Your task to perform on an android device: move an email to a new category in the gmail app Image 0: 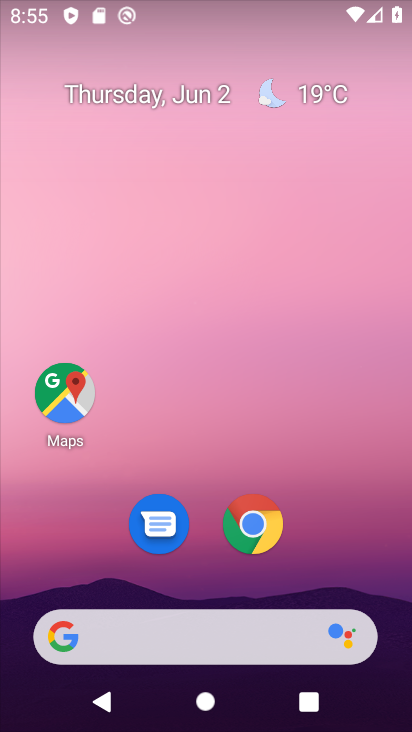
Step 0: drag from (336, 496) to (314, 3)
Your task to perform on an android device: move an email to a new category in the gmail app Image 1: 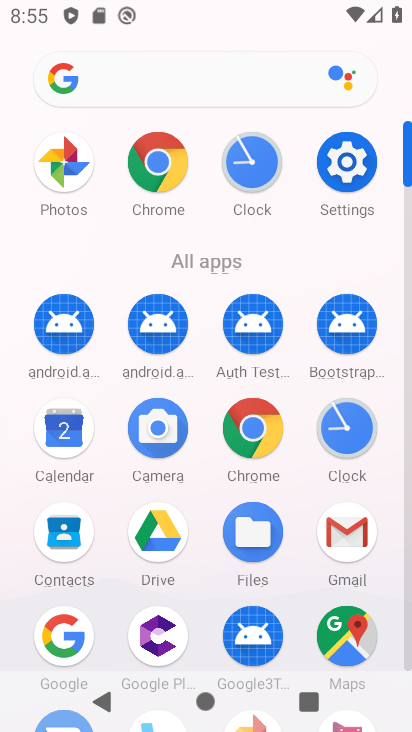
Step 1: click (352, 538)
Your task to perform on an android device: move an email to a new category in the gmail app Image 2: 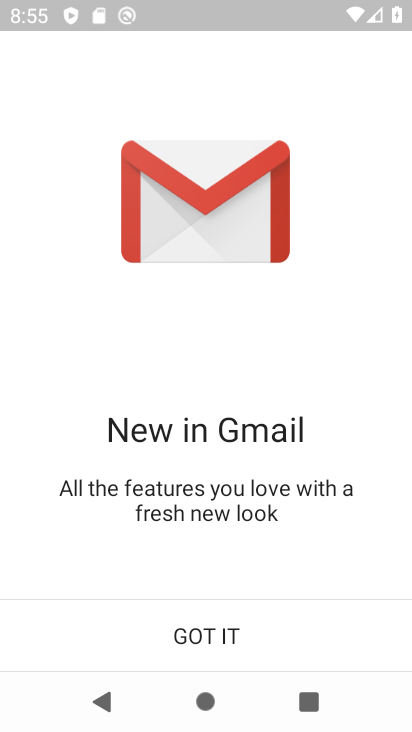
Step 2: click (285, 640)
Your task to perform on an android device: move an email to a new category in the gmail app Image 3: 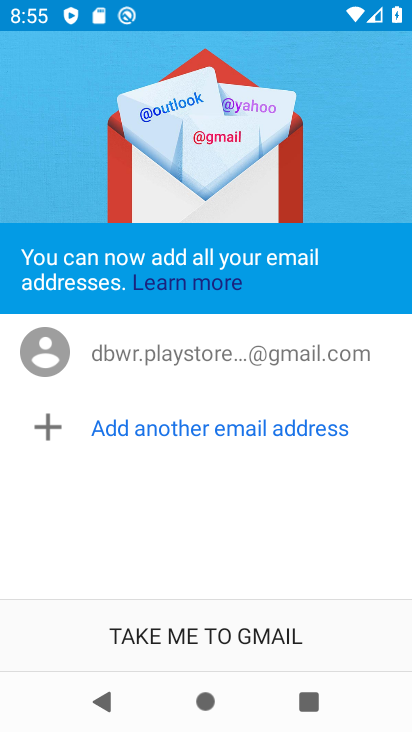
Step 3: click (289, 627)
Your task to perform on an android device: move an email to a new category in the gmail app Image 4: 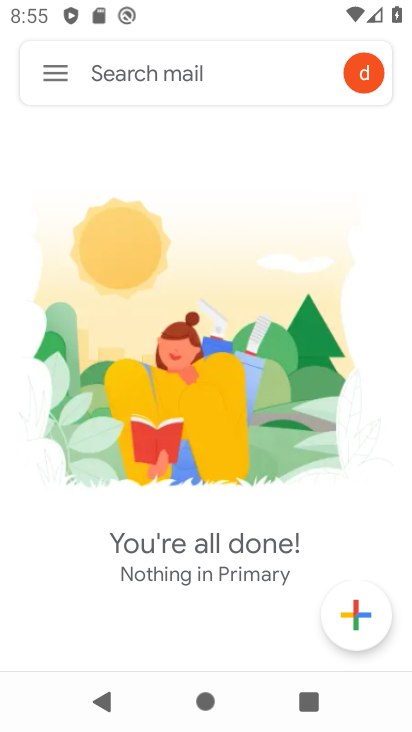
Step 4: click (51, 62)
Your task to perform on an android device: move an email to a new category in the gmail app Image 5: 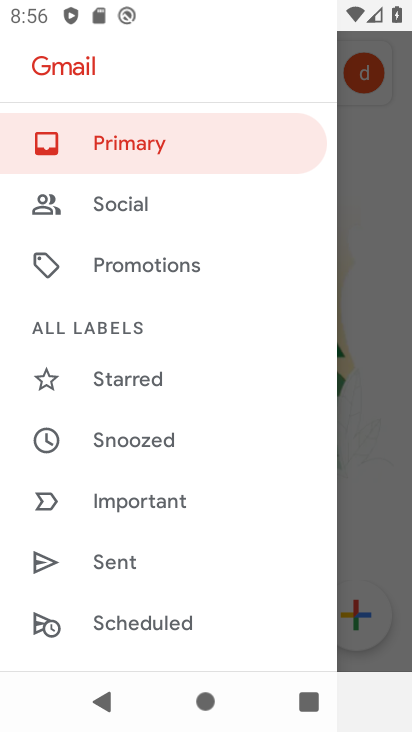
Step 5: drag from (167, 534) to (224, 120)
Your task to perform on an android device: move an email to a new category in the gmail app Image 6: 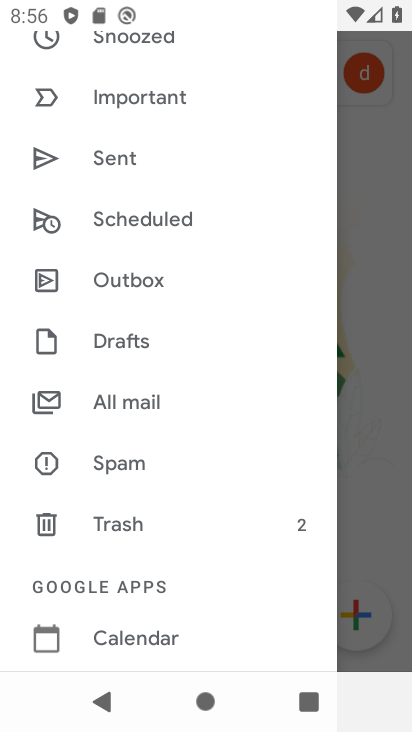
Step 6: click (193, 408)
Your task to perform on an android device: move an email to a new category in the gmail app Image 7: 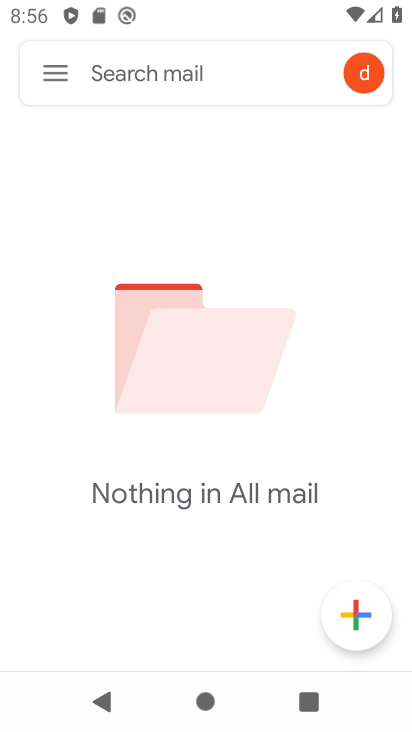
Step 7: task complete